Your task to perform on an android device: Open the map Image 0: 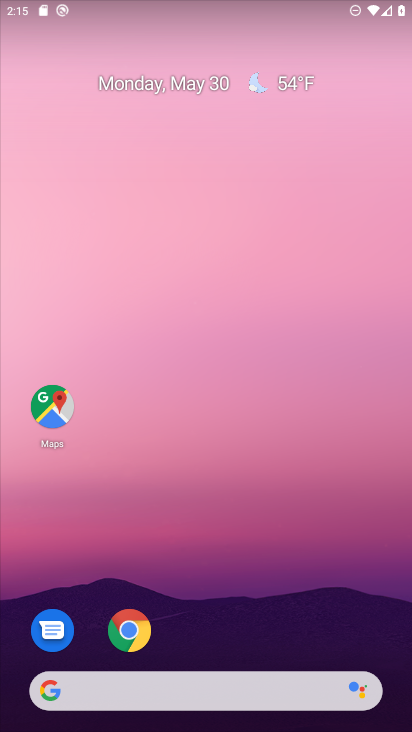
Step 0: click (52, 410)
Your task to perform on an android device: Open the map Image 1: 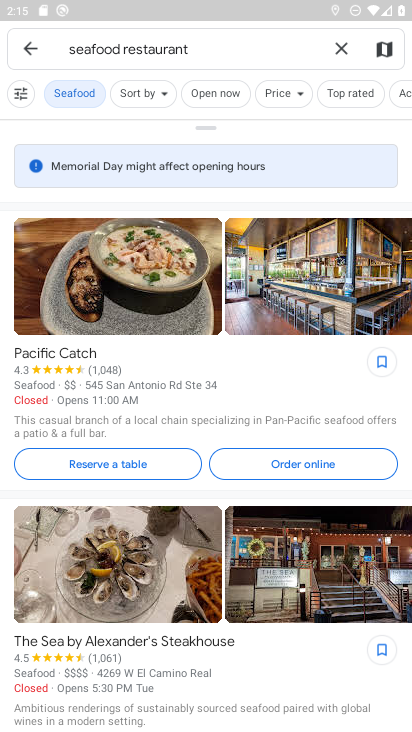
Step 1: press home button
Your task to perform on an android device: Open the map Image 2: 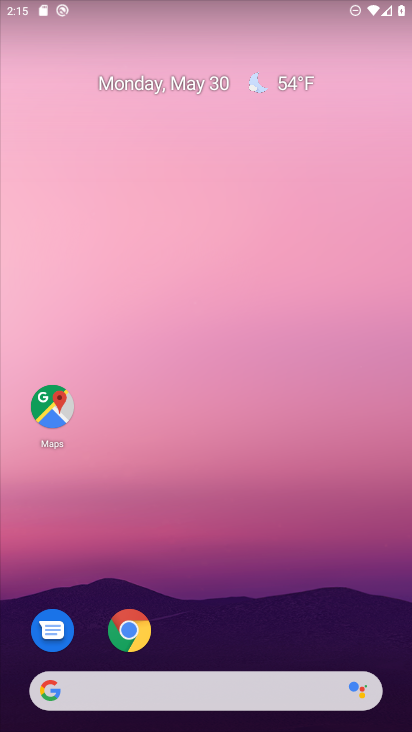
Step 2: click (50, 408)
Your task to perform on an android device: Open the map Image 3: 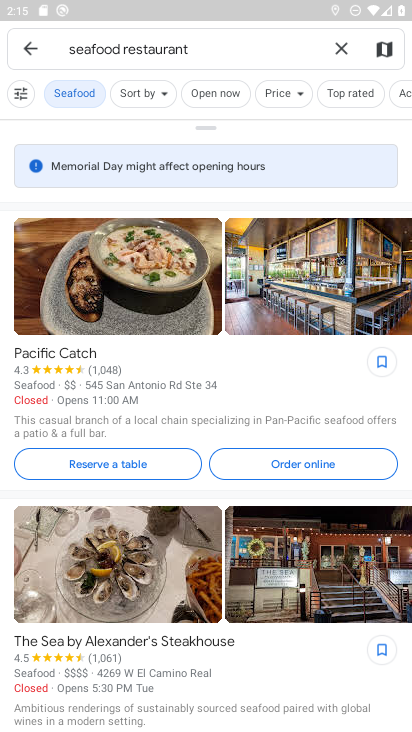
Step 3: task complete